Your task to perform on an android device: add a label to a message in the gmail app Image 0: 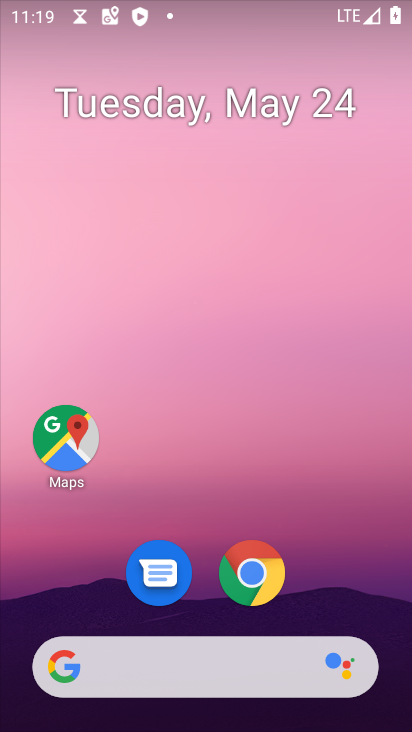
Step 0: drag from (46, 623) to (225, 213)
Your task to perform on an android device: add a label to a message in the gmail app Image 1: 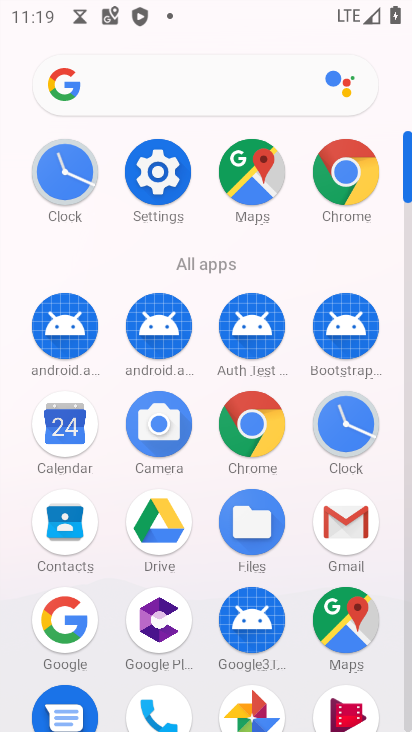
Step 1: click (352, 513)
Your task to perform on an android device: add a label to a message in the gmail app Image 2: 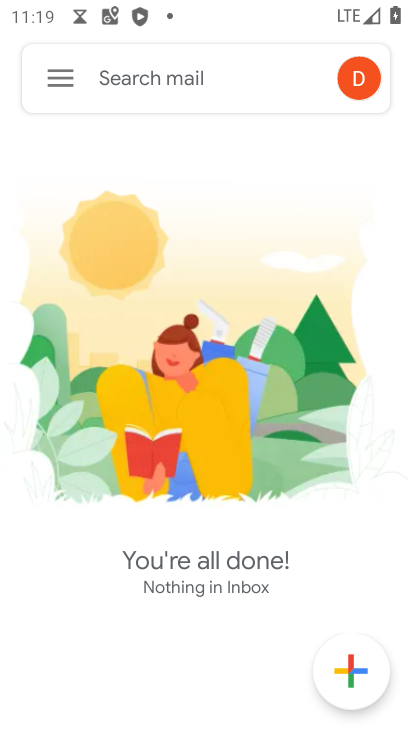
Step 2: click (59, 76)
Your task to perform on an android device: add a label to a message in the gmail app Image 3: 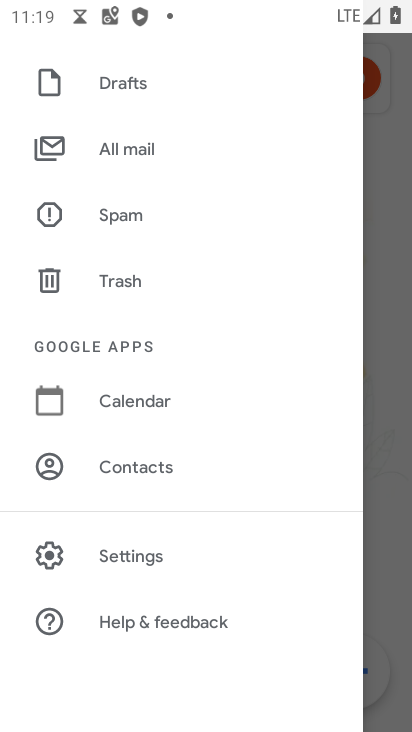
Step 3: drag from (247, 178) to (210, 587)
Your task to perform on an android device: add a label to a message in the gmail app Image 4: 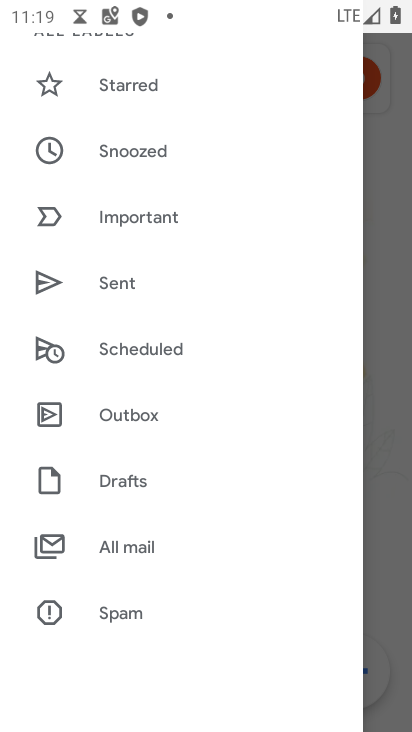
Step 4: click (149, 558)
Your task to perform on an android device: add a label to a message in the gmail app Image 5: 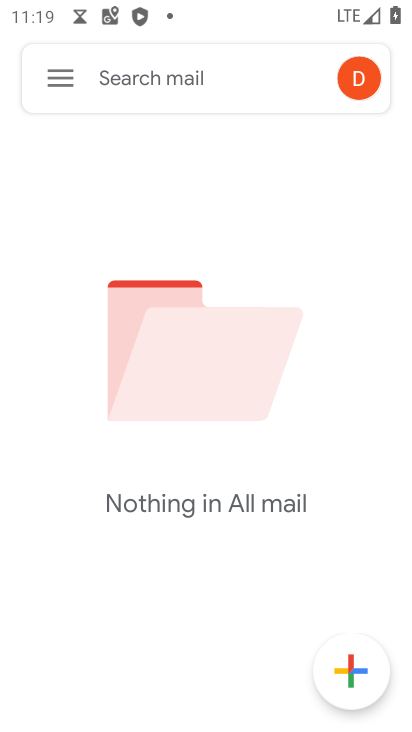
Step 5: task complete